Your task to perform on an android device: Show the shopping cart on bestbuy.com. Image 0: 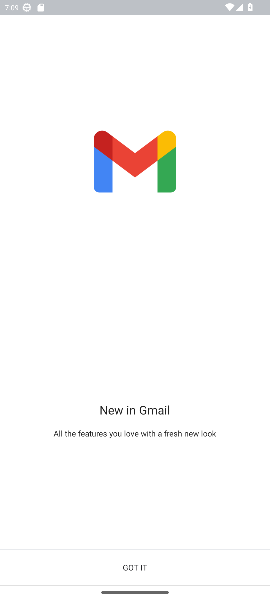
Step 0: press home button
Your task to perform on an android device: Show the shopping cart on bestbuy.com. Image 1: 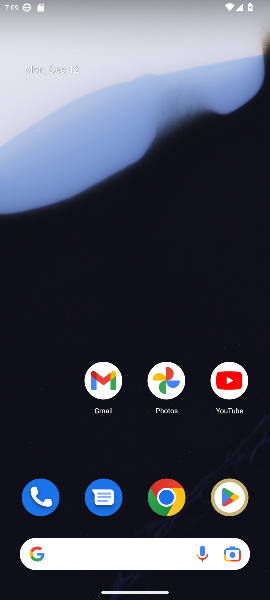
Step 1: drag from (54, 240) to (62, 37)
Your task to perform on an android device: Show the shopping cart on bestbuy.com. Image 2: 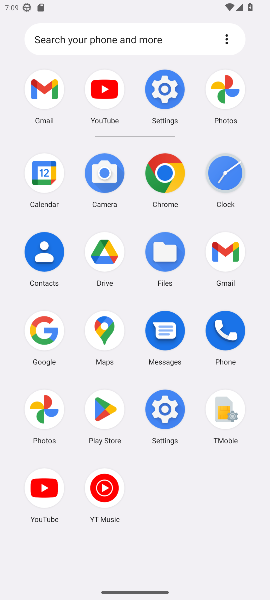
Step 2: click (36, 330)
Your task to perform on an android device: Show the shopping cart on bestbuy.com. Image 3: 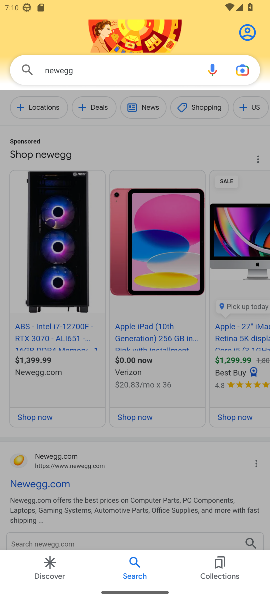
Step 3: click (90, 69)
Your task to perform on an android device: Show the shopping cart on bestbuy.com. Image 4: 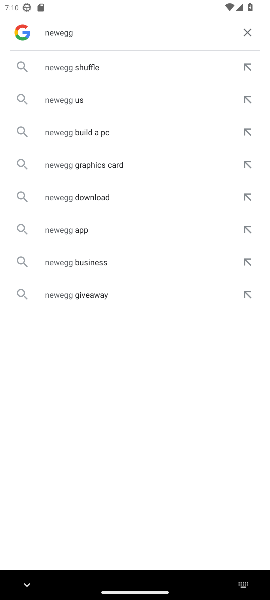
Step 4: click (243, 30)
Your task to perform on an android device: Show the shopping cart on bestbuy.com. Image 5: 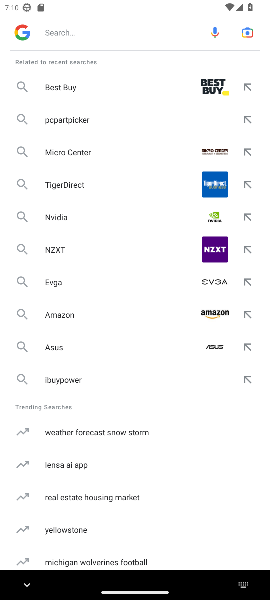
Step 5: type " bestbuy.com"
Your task to perform on an android device: Show the shopping cart on bestbuy.com. Image 6: 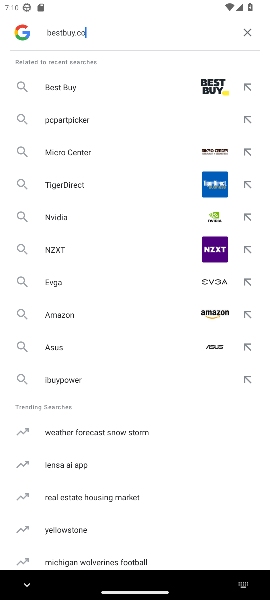
Step 6: press enter
Your task to perform on an android device: Show the shopping cart on bestbuy.com. Image 7: 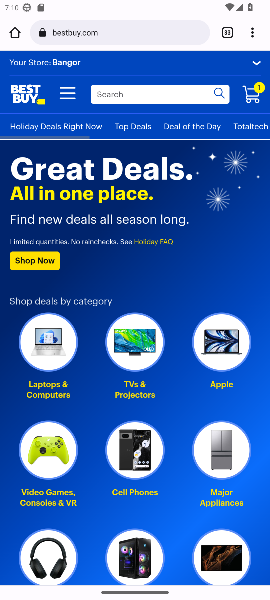
Step 7: click (249, 93)
Your task to perform on an android device: Show the shopping cart on bestbuy.com. Image 8: 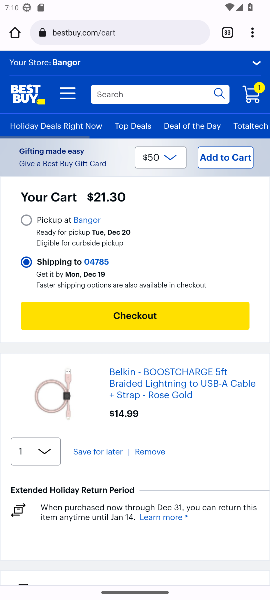
Step 8: task complete